Your task to perform on an android device: open app "Lyft - Rideshare, Bikes, Scooters & Transit" (install if not already installed) Image 0: 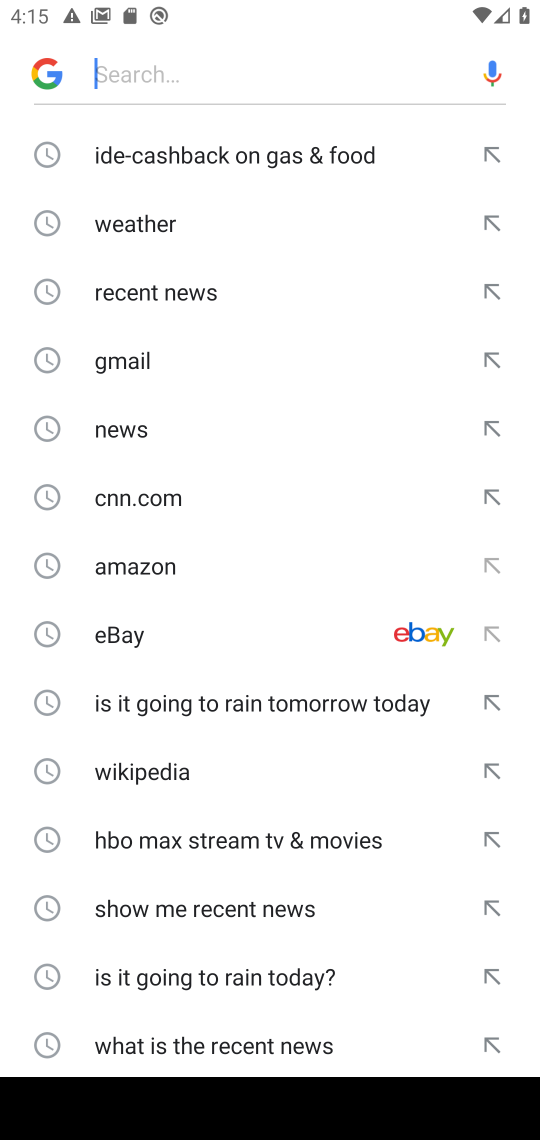
Step 0: press home button
Your task to perform on an android device: open app "Lyft - Rideshare, Bikes, Scooters & Transit" (install if not already installed) Image 1: 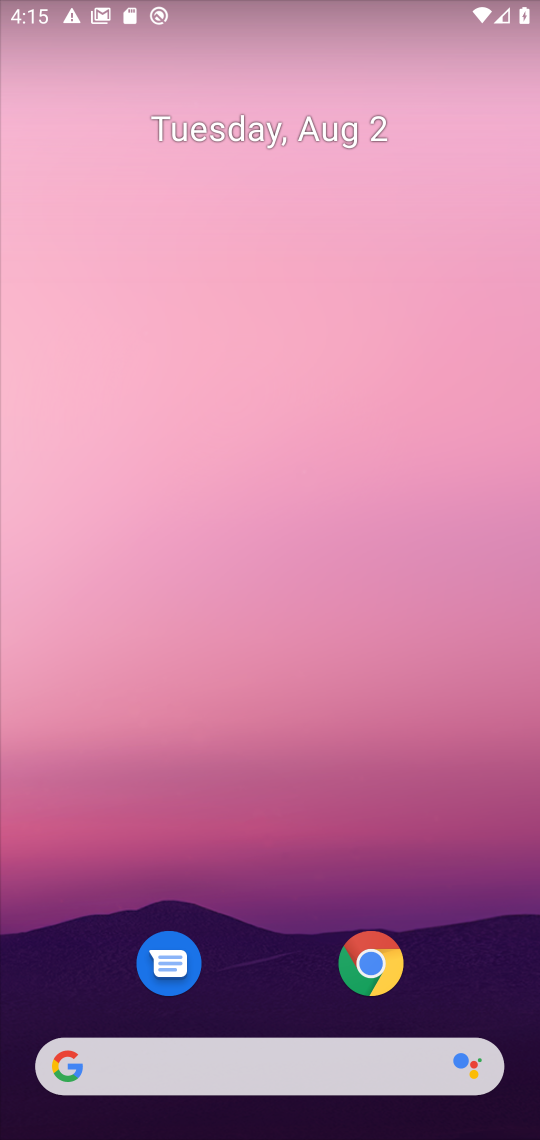
Step 1: drag from (253, 802) to (246, 189)
Your task to perform on an android device: open app "Lyft - Rideshare, Bikes, Scooters & Transit" (install if not already installed) Image 2: 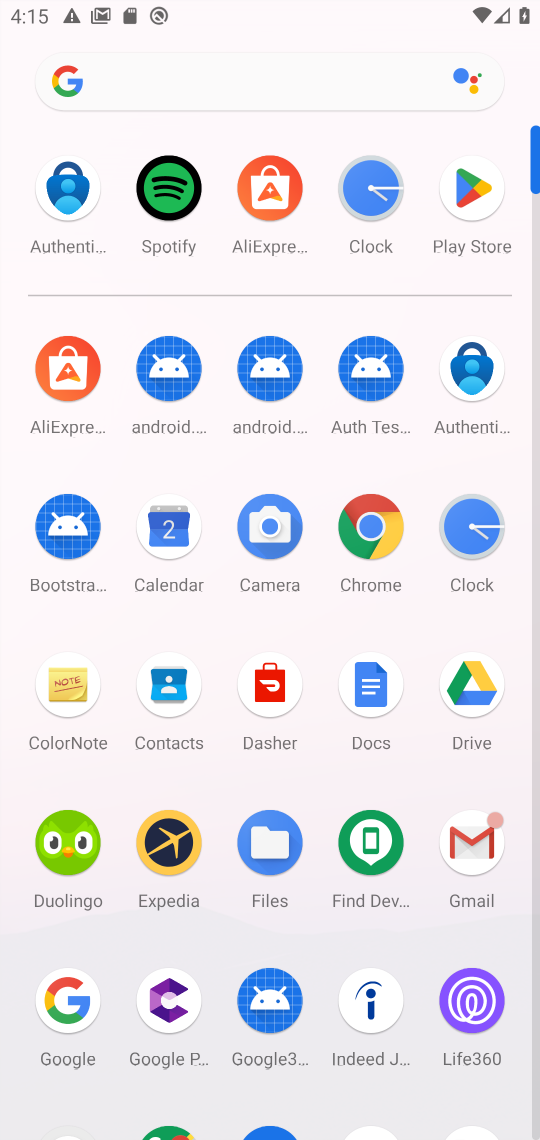
Step 2: click (463, 204)
Your task to perform on an android device: open app "Lyft - Rideshare, Bikes, Scooters & Transit" (install if not already installed) Image 3: 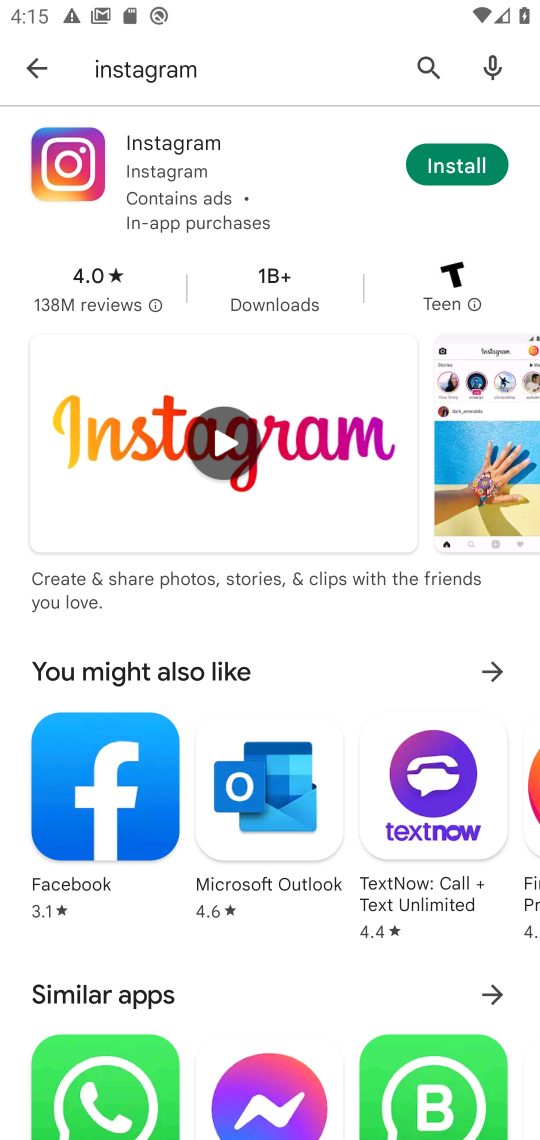
Step 3: click (427, 67)
Your task to perform on an android device: open app "Lyft - Rideshare, Bikes, Scooters & Transit" (install if not already installed) Image 4: 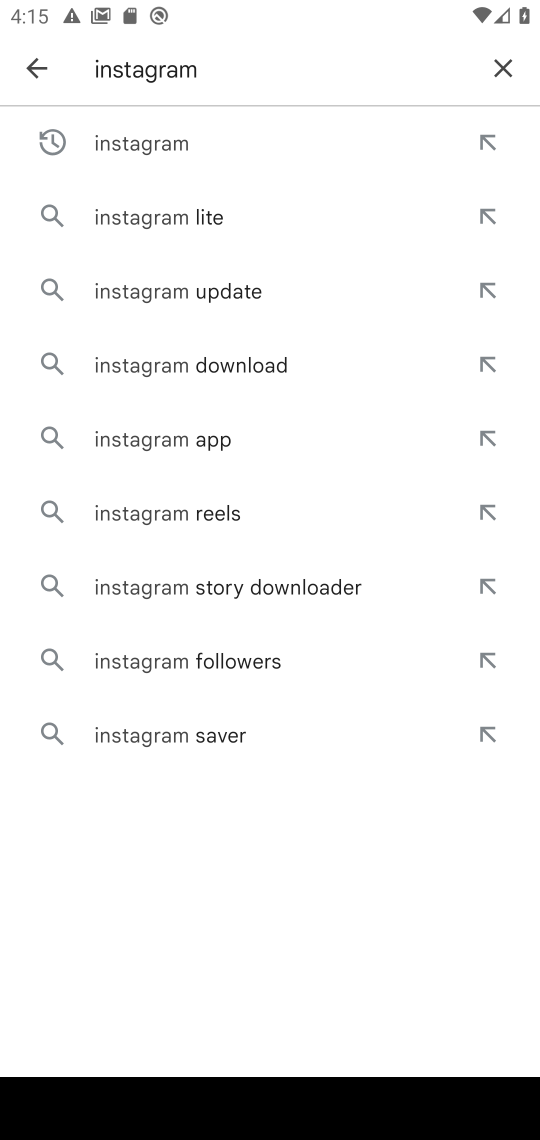
Step 4: click (505, 76)
Your task to perform on an android device: open app "Lyft - Rideshare, Bikes, Scooters & Transit" (install if not already installed) Image 5: 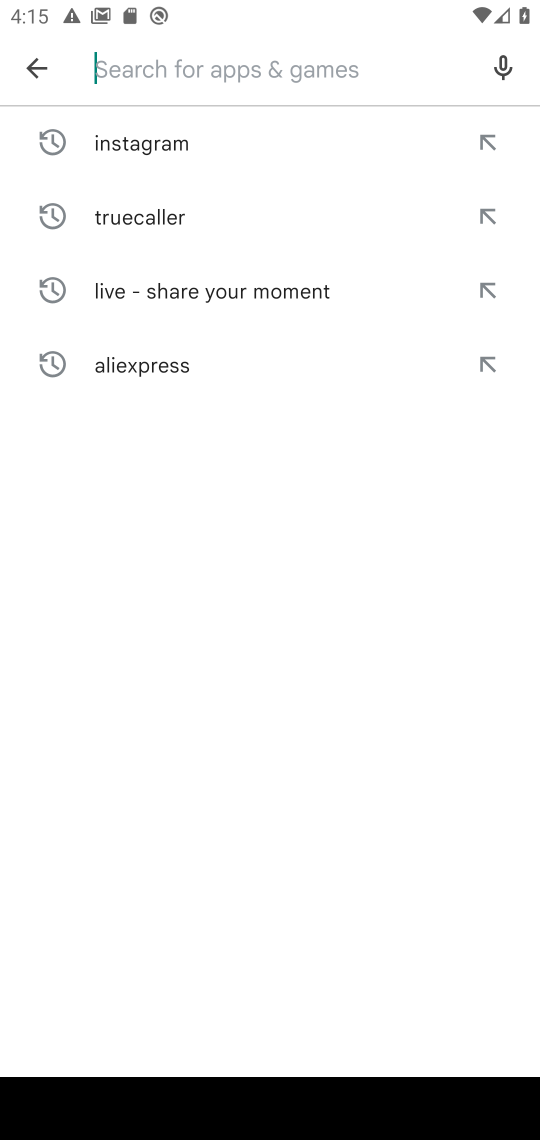
Step 5: type "Lyft - Rideshare, Bikes, Scooters & Transit"
Your task to perform on an android device: open app "Lyft - Rideshare, Bikes, Scooters & Transit" (install if not already installed) Image 6: 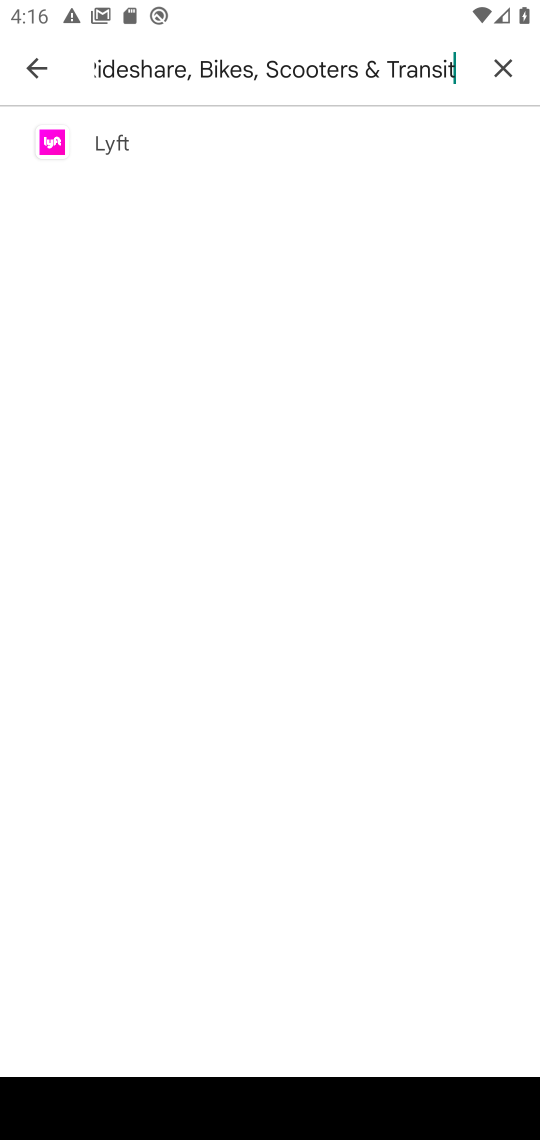
Step 6: click (110, 154)
Your task to perform on an android device: open app "Lyft - Rideshare, Bikes, Scooters & Transit" (install if not already installed) Image 7: 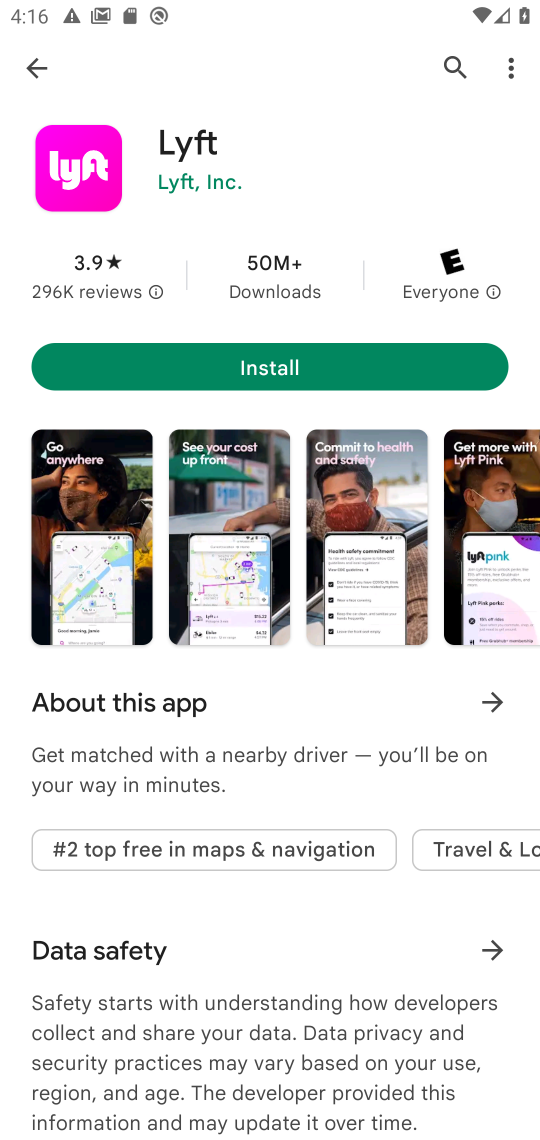
Step 7: click (277, 363)
Your task to perform on an android device: open app "Lyft - Rideshare, Bikes, Scooters & Transit" (install if not already installed) Image 8: 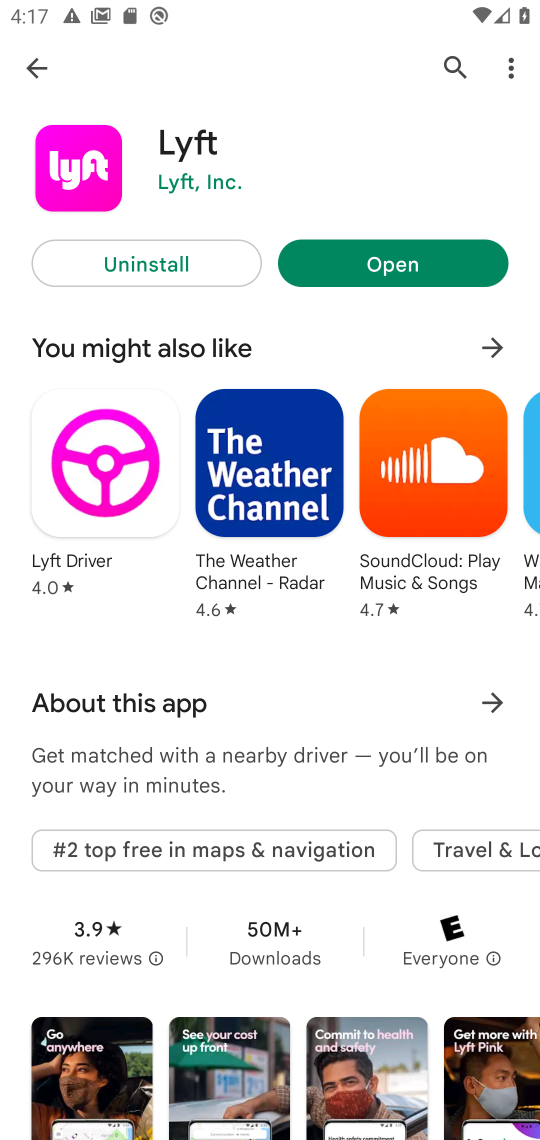
Step 8: click (347, 261)
Your task to perform on an android device: open app "Lyft - Rideshare, Bikes, Scooters & Transit" (install if not already installed) Image 9: 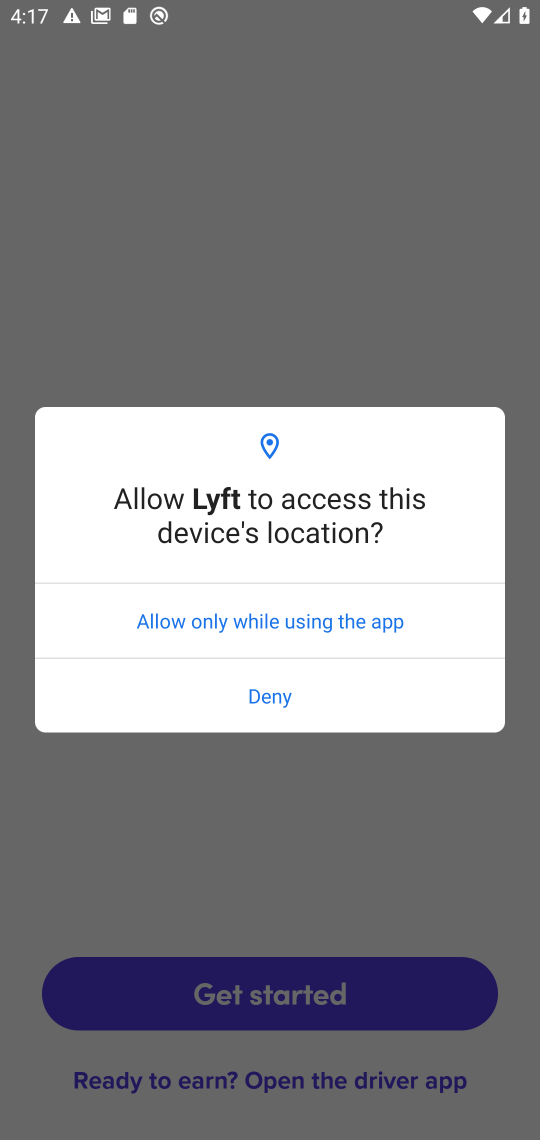
Step 9: task complete